Your task to perform on an android device: turn off airplane mode Image 0: 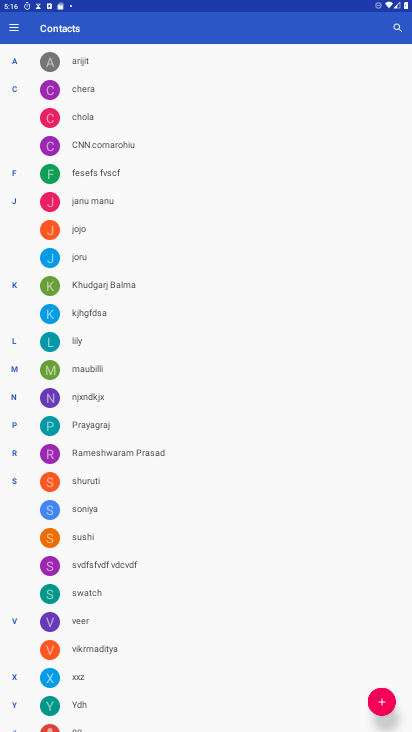
Step 0: press home button
Your task to perform on an android device: turn off airplane mode Image 1: 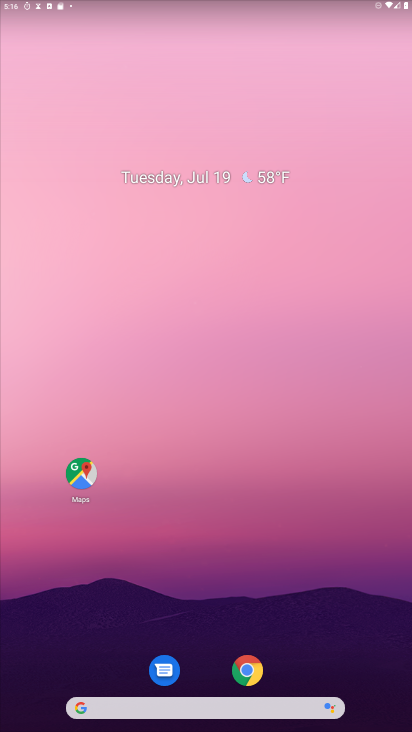
Step 1: drag from (274, 711) to (319, 77)
Your task to perform on an android device: turn off airplane mode Image 2: 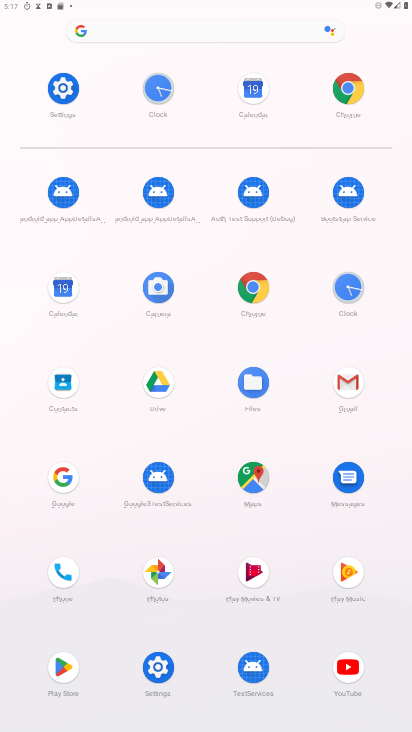
Step 2: click (66, 80)
Your task to perform on an android device: turn off airplane mode Image 3: 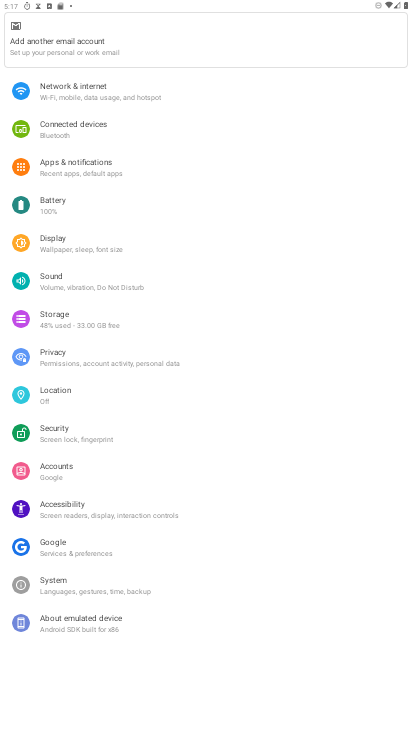
Step 3: click (137, 98)
Your task to perform on an android device: turn off airplane mode Image 4: 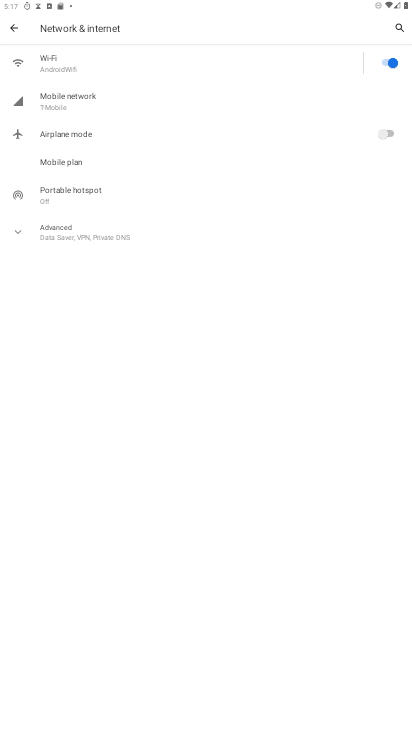
Step 4: task complete